Your task to perform on an android device: stop showing notifications on the lock screen Image 0: 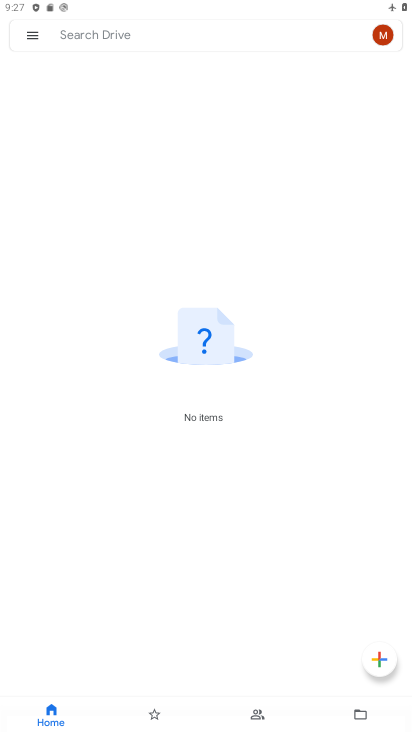
Step 0: press home button
Your task to perform on an android device: stop showing notifications on the lock screen Image 1: 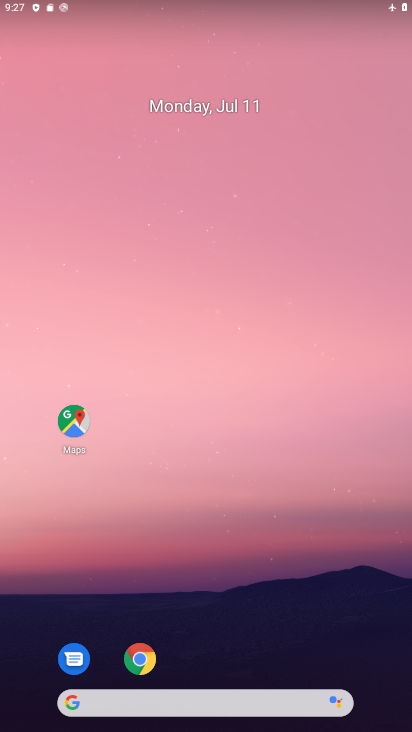
Step 1: drag from (218, 657) to (303, 134)
Your task to perform on an android device: stop showing notifications on the lock screen Image 2: 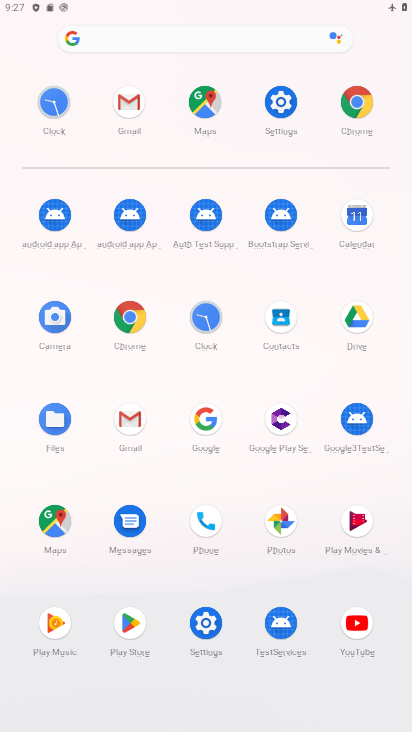
Step 2: click (283, 112)
Your task to perform on an android device: stop showing notifications on the lock screen Image 3: 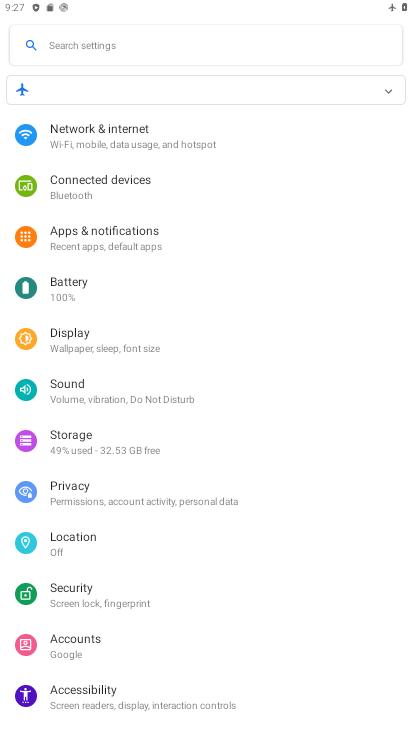
Step 3: click (122, 243)
Your task to perform on an android device: stop showing notifications on the lock screen Image 4: 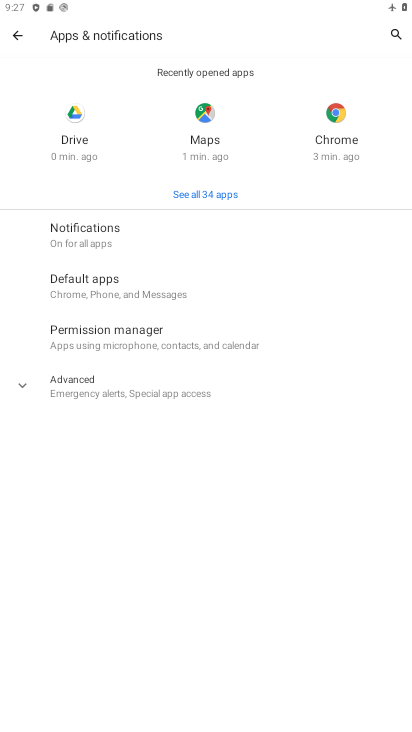
Step 4: click (127, 239)
Your task to perform on an android device: stop showing notifications on the lock screen Image 5: 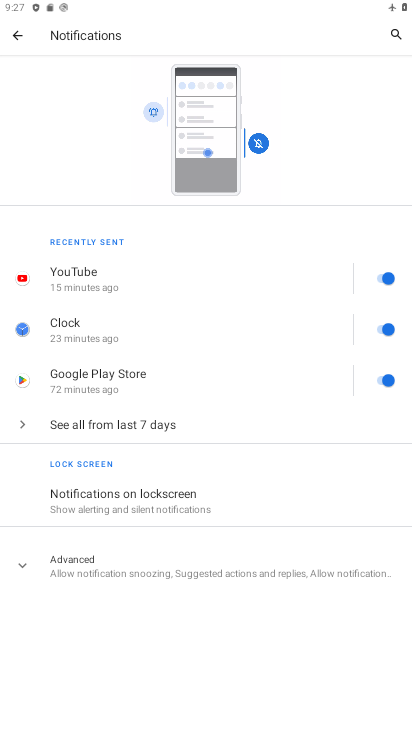
Step 5: click (218, 496)
Your task to perform on an android device: stop showing notifications on the lock screen Image 6: 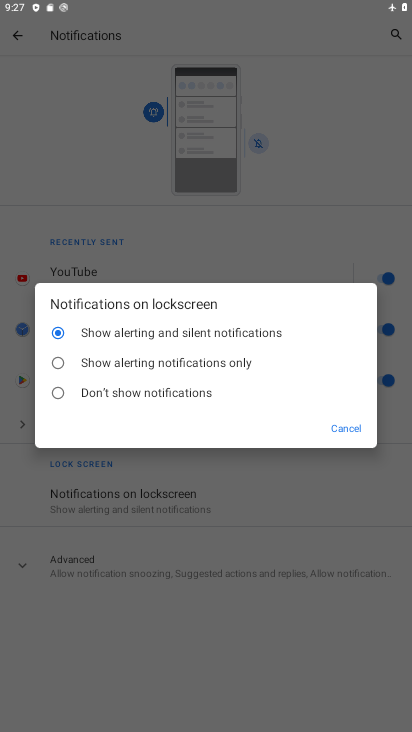
Step 6: click (202, 394)
Your task to perform on an android device: stop showing notifications on the lock screen Image 7: 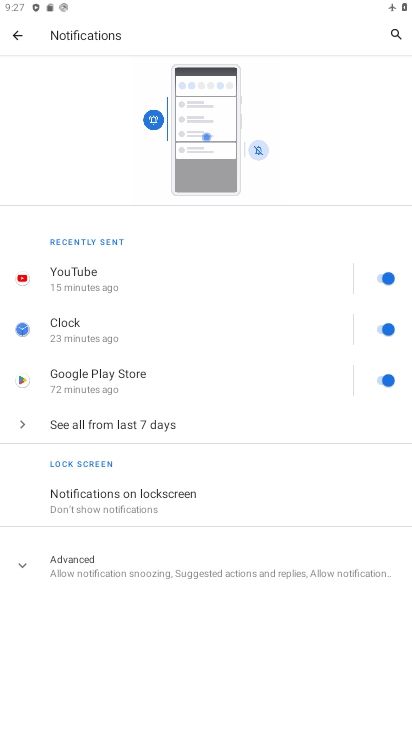
Step 7: task complete